Your task to perform on an android device: manage bookmarks in the chrome app Image 0: 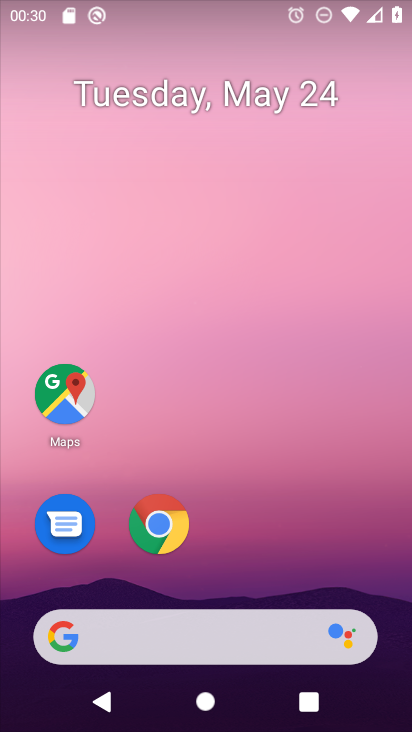
Step 0: click (130, 521)
Your task to perform on an android device: manage bookmarks in the chrome app Image 1: 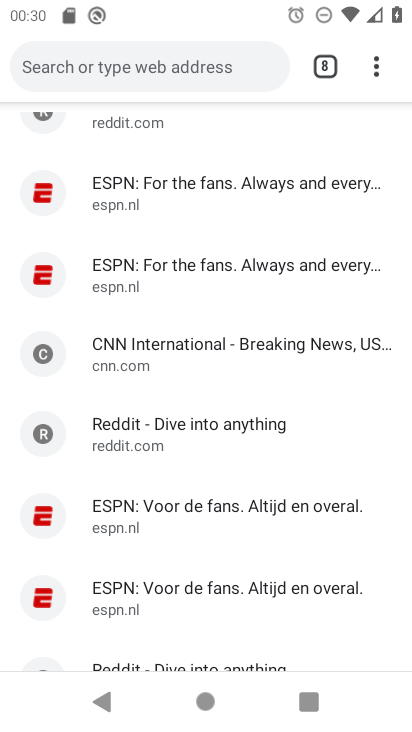
Step 1: drag from (371, 74) to (156, 328)
Your task to perform on an android device: manage bookmarks in the chrome app Image 2: 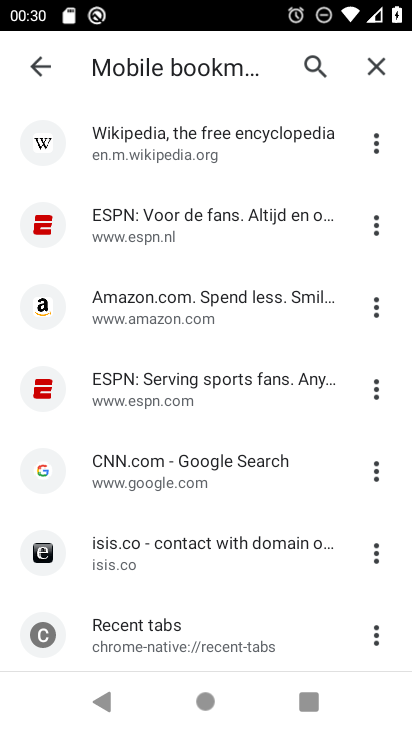
Step 2: click (373, 231)
Your task to perform on an android device: manage bookmarks in the chrome app Image 3: 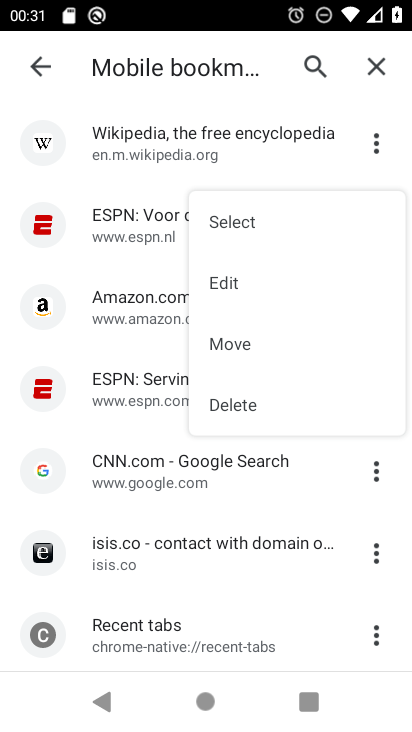
Step 3: click (372, 138)
Your task to perform on an android device: manage bookmarks in the chrome app Image 4: 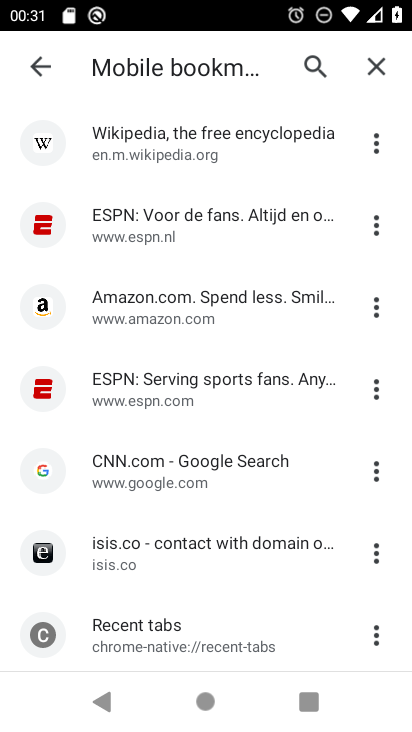
Step 4: click (373, 146)
Your task to perform on an android device: manage bookmarks in the chrome app Image 5: 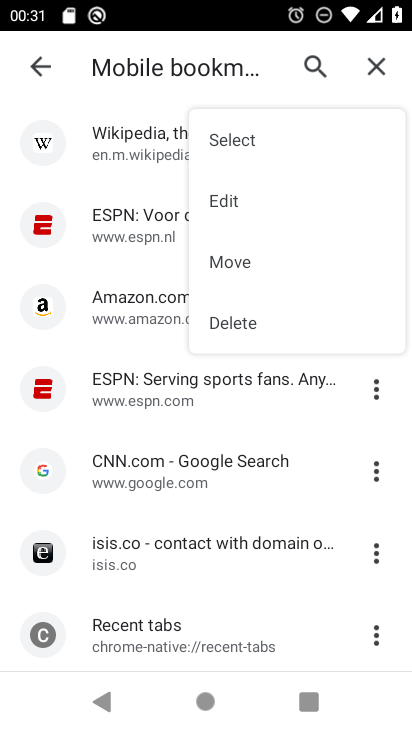
Step 5: click (239, 317)
Your task to perform on an android device: manage bookmarks in the chrome app Image 6: 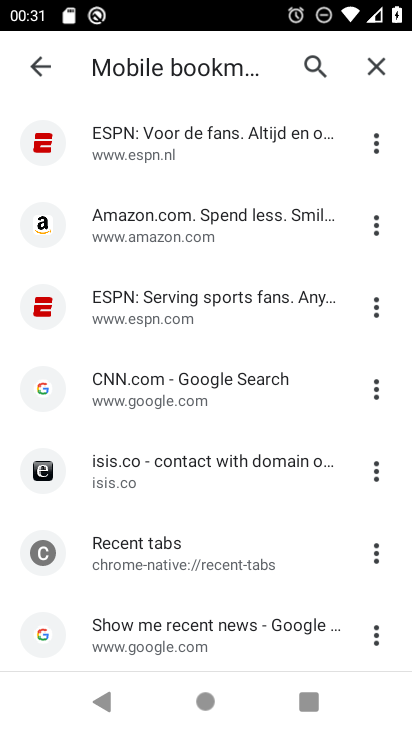
Step 6: task complete